Your task to perform on an android device: check battery use Image 0: 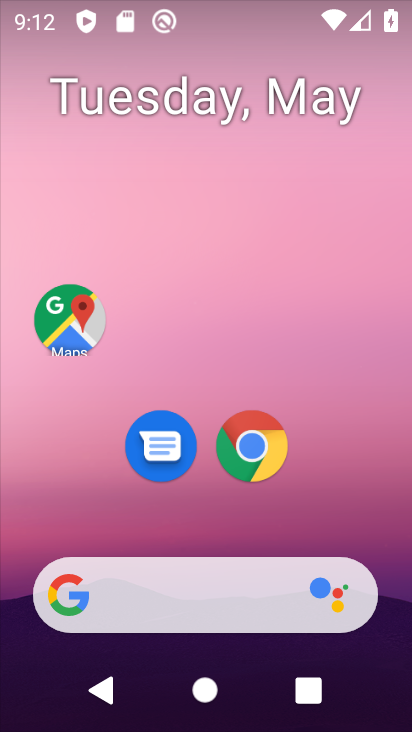
Step 0: drag from (228, 603) to (231, 46)
Your task to perform on an android device: check battery use Image 1: 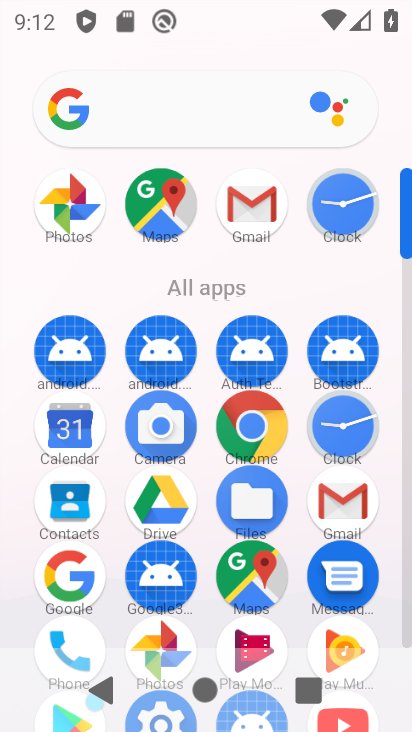
Step 1: drag from (201, 594) to (204, 95)
Your task to perform on an android device: check battery use Image 2: 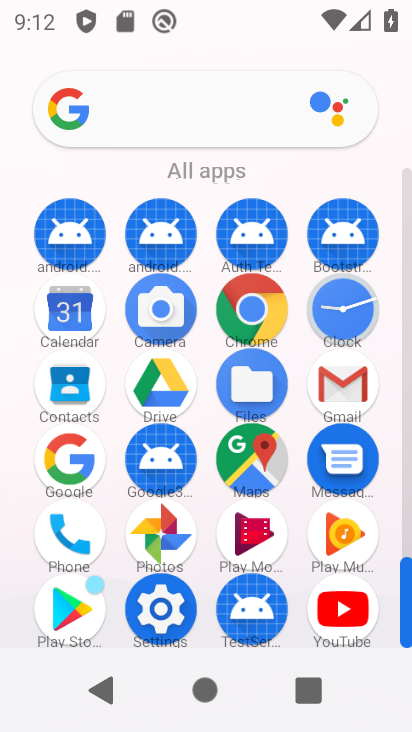
Step 2: click (166, 614)
Your task to perform on an android device: check battery use Image 3: 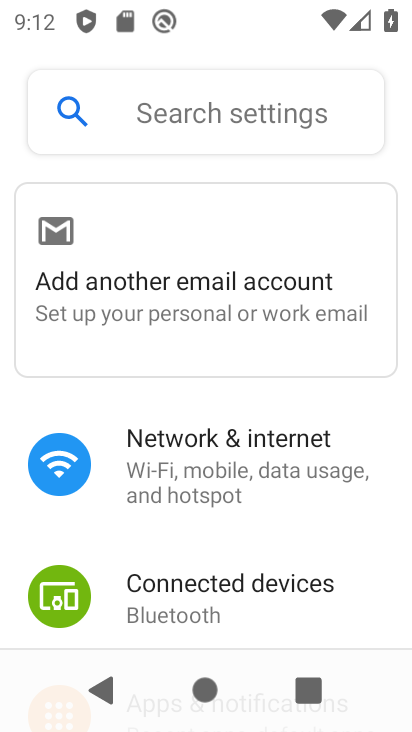
Step 3: drag from (225, 574) to (162, 73)
Your task to perform on an android device: check battery use Image 4: 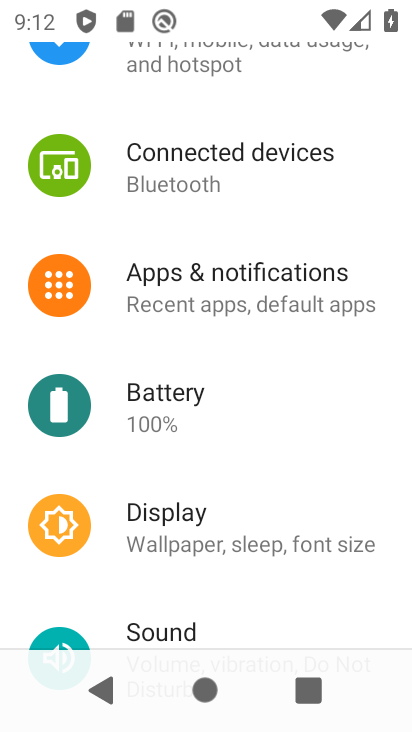
Step 4: click (158, 397)
Your task to perform on an android device: check battery use Image 5: 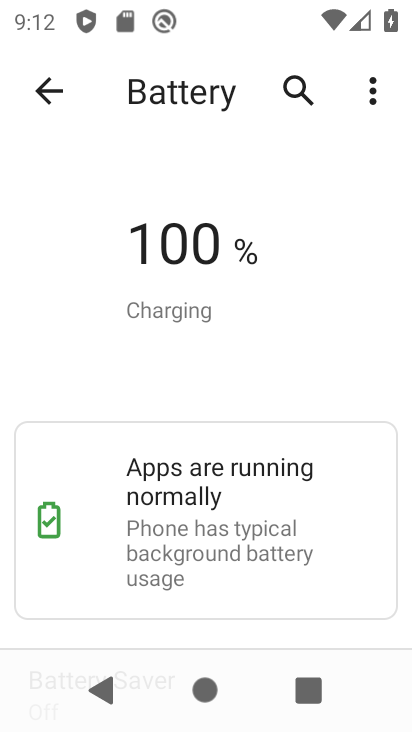
Step 5: click (369, 92)
Your task to perform on an android device: check battery use Image 6: 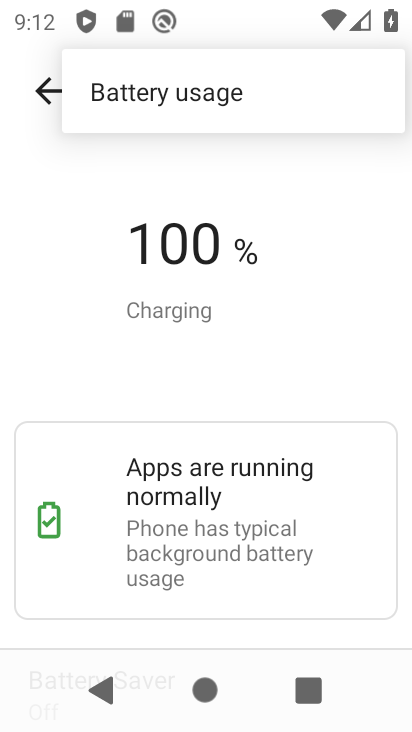
Step 6: click (225, 102)
Your task to perform on an android device: check battery use Image 7: 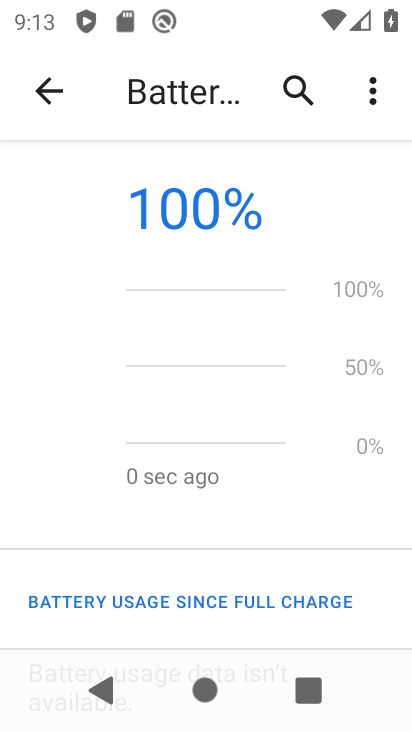
Step 7: task complete